Your task to perform on an android device: Go to sound settings Image 0: 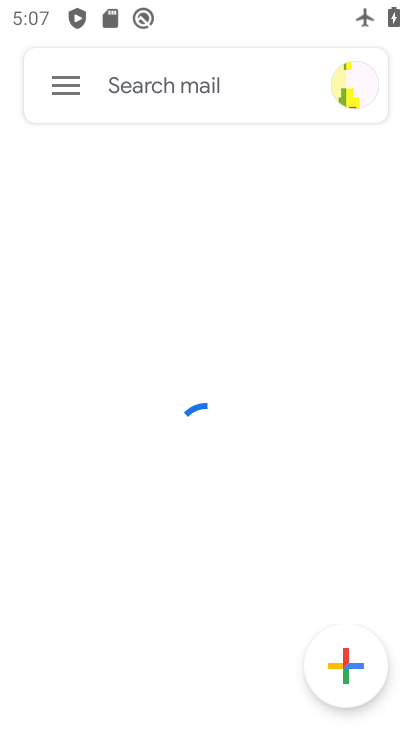
Step 0: press home button
Your task to perform on an android device: Go to sound settings Image 1: 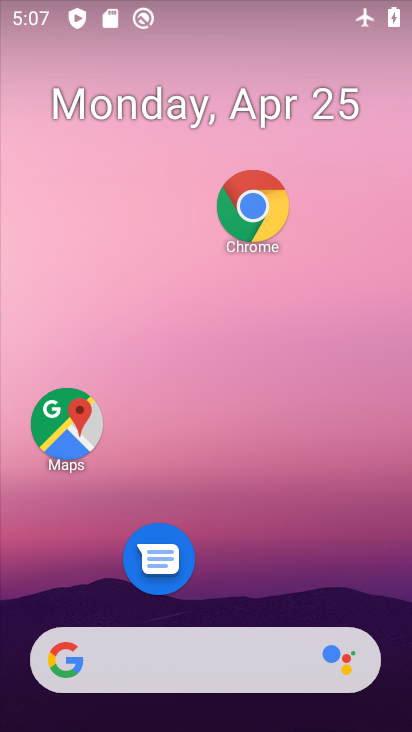
Step 1: drag from (296, 513) to (296, 125)
Your task to perform on an android device: Go to sound settings Image 2: 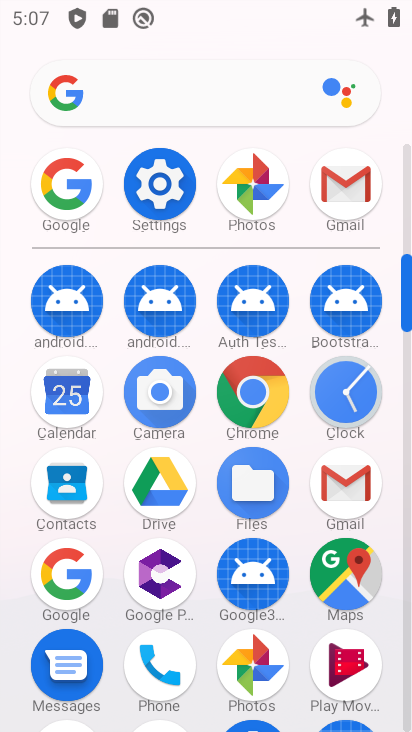
Step 2: click (157, 197)
Your task to perform on an android device: Go to sound settings Image 3: 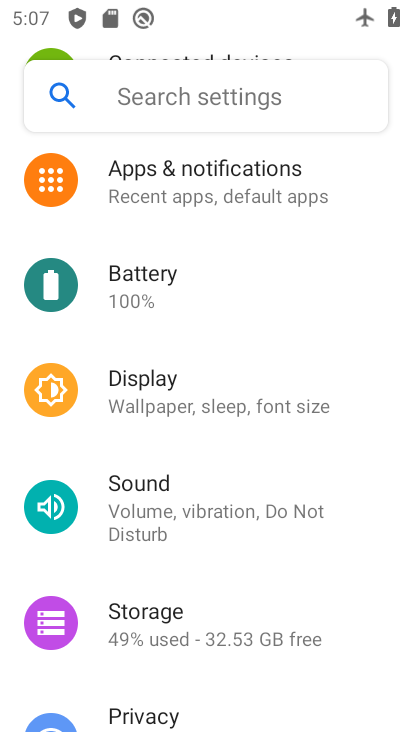
Step 3: click (156, 501)
Your task to perform on an android device: Go to sound settings Image 4: 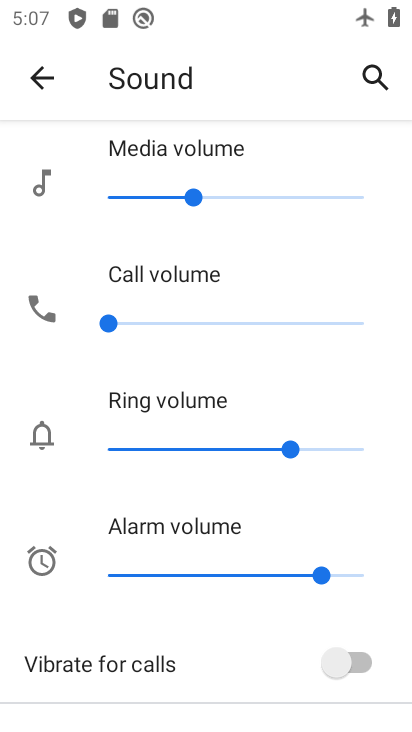
Step 4: task complete